Your task to perform on an android device: Show me recent news Image 0: 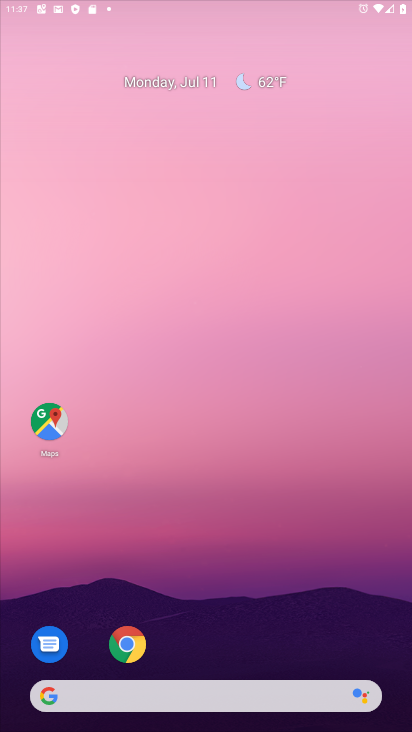
Step 0: drag from (221, 673) to (167, 161)
Your task to perform on an android device: Show me recent news Image 1: 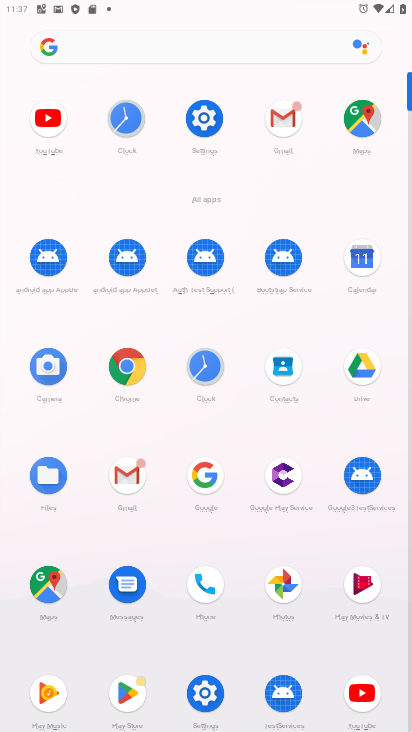
Step 1: task complete